Your task to perform on an android device: turn vacation reply on in the gmail app Image 0: 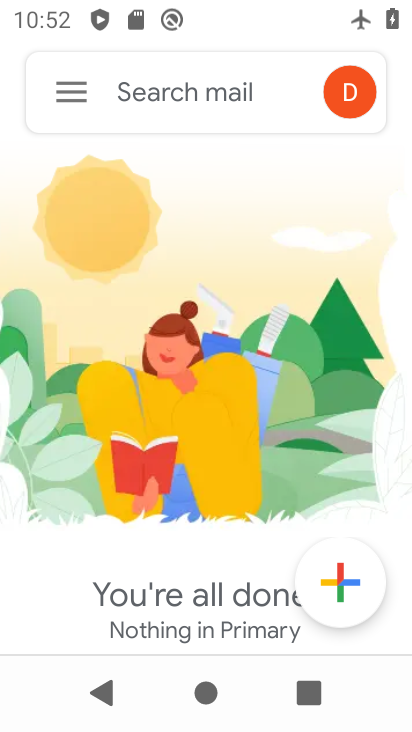
Step 0: press home button
Your task to perform on an android device: turn vacation reply on in the gmail app Image 1: 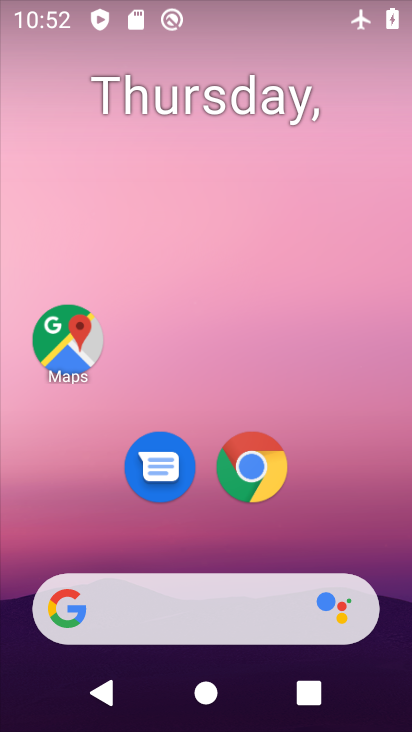
Step 1: drag from (341, 545) to (277, 13)
Your task to perform on an android device: turn vacation reply on in the gmail app Image 2: 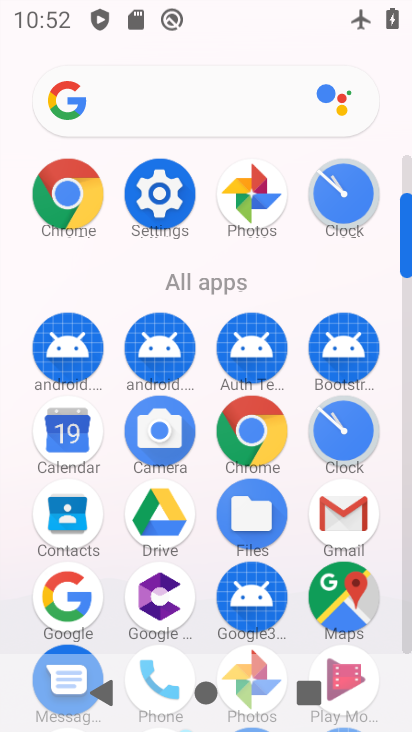
Step 2: click (339, 505)
Your task to perform on an android device: turn vacation reply on in the gmail app Image 3: 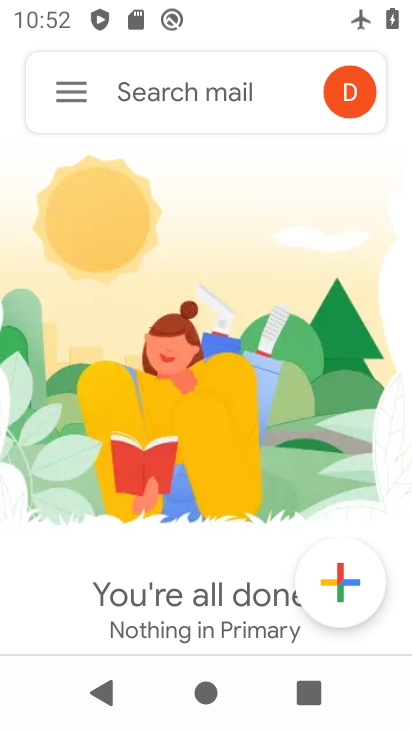
Step 3: click (76, 93)
Your task to perform on an android device: turn vacation reply on in the gmail app Image 4: 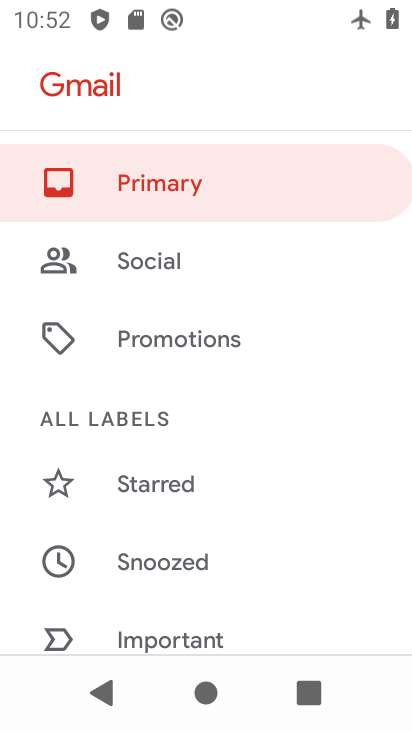
Step 4: drag from (229, 599) to (216, 36)
Your task to perform on an android device: turn vacation reply on in the gmail app Image 5: 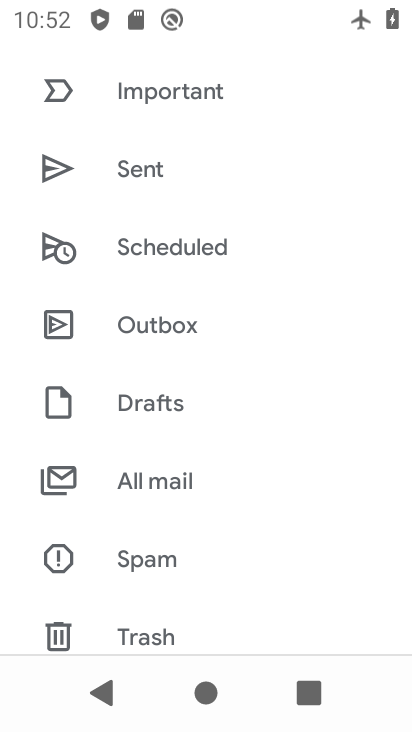
Step 5: drag from (157, 529) to (166, 65)
Your task to perform on an android device: turn vacation reply on in the gmail app Image 6: 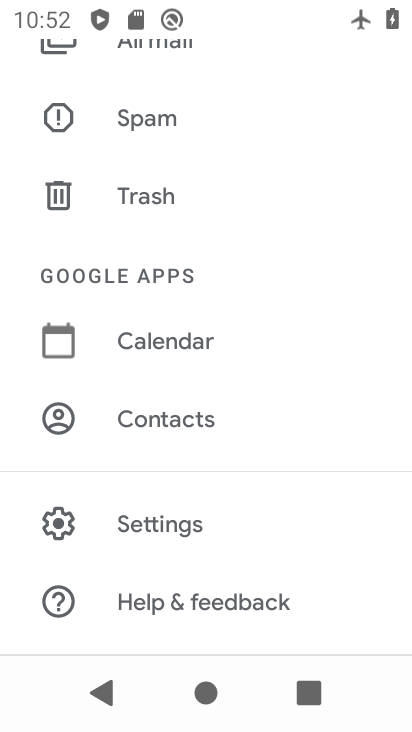
Step 6: click (130, 524)
Your task to perform on an android device: turn vacation reply on in the gmail app Image 7: 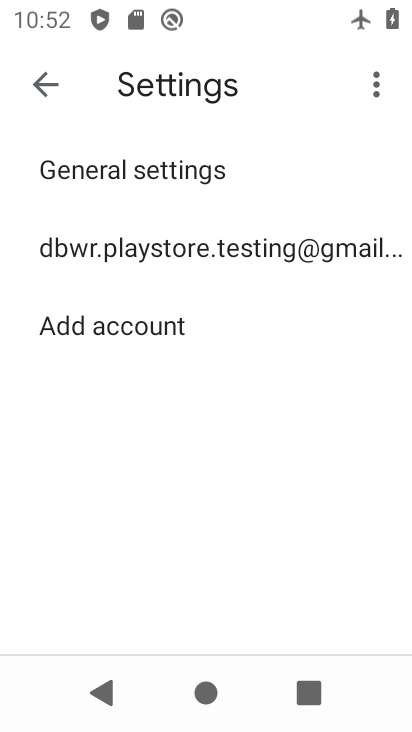
Step 7: click (100, 245)
Your task to perform on an android device: turn vacation reply on in the gmail app Image 8: 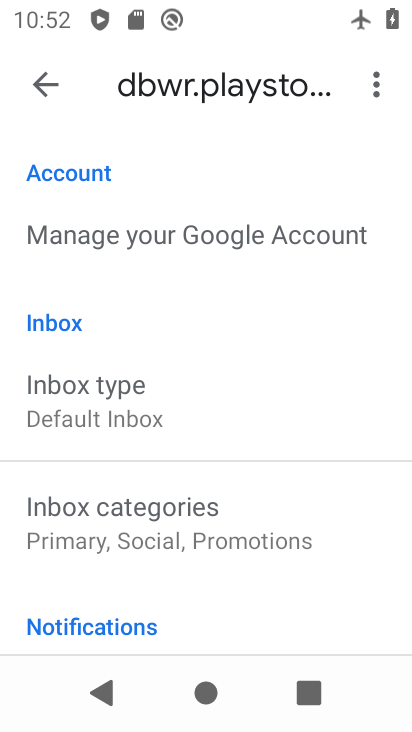
Step 8: drag from (154, 535) to (152, 34)
Your task to perform on an android device: turn vacation reply on in the gmail app Image 9: 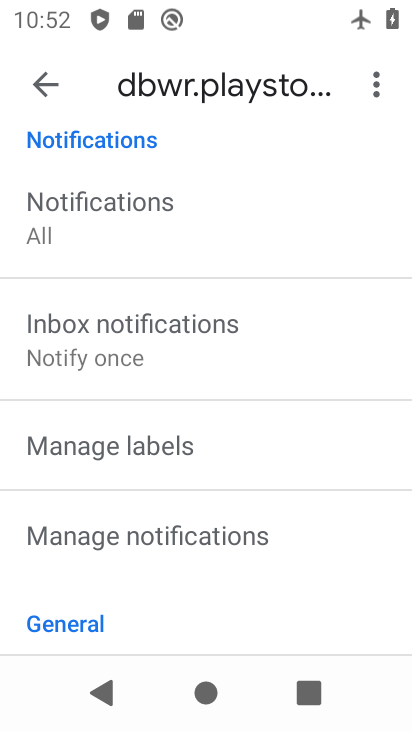
Step 9: drag from (180, 552) to (179, 127)
Your task to perform on an android device: turn vacation reply on in the gmail app Image 10: 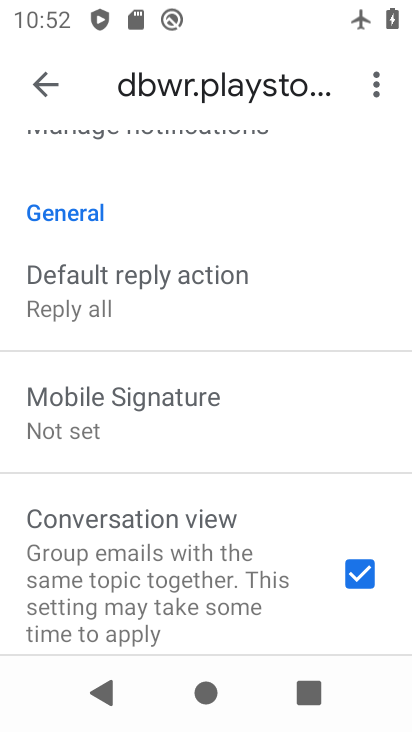
Step 10: drag from (185, 508) to (166, 135)
Your task to perform on an android device: turn vacation reply on in the gmail app Image 11: 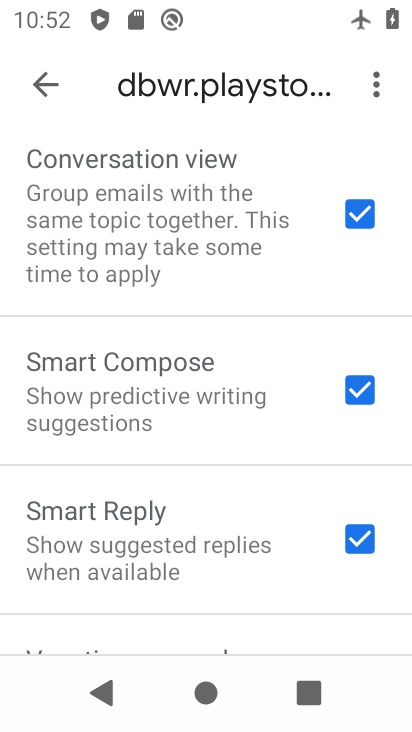
Step 11: drag from (140, 513) to (128, 154)
Your task to perform on an android device: turn vacation reply on in the gmail app Image 12: 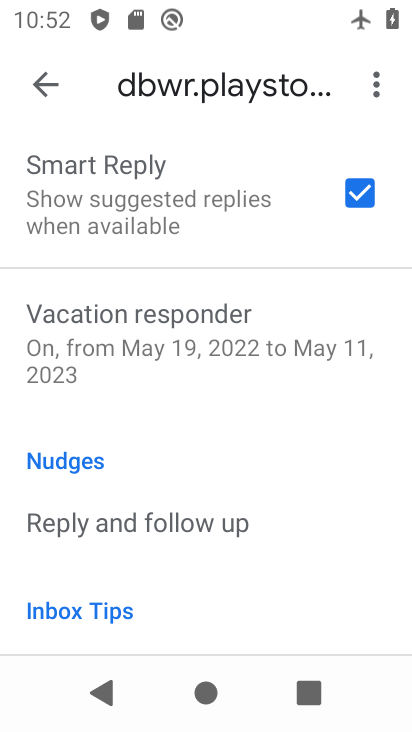
Step 12: click (107, 351)
Your task to perform on an android device: turn vacation reply on in the gmail app Image 13: 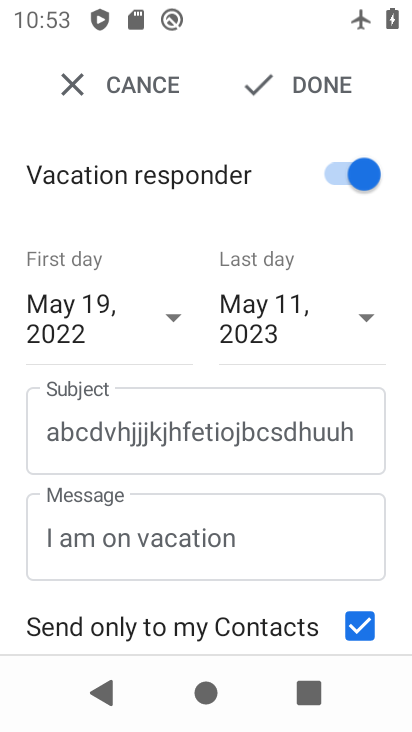
Step 13: click (309, 88)
Your task to perform on an android device: turn vacation reply on in the gmail app Image 14: 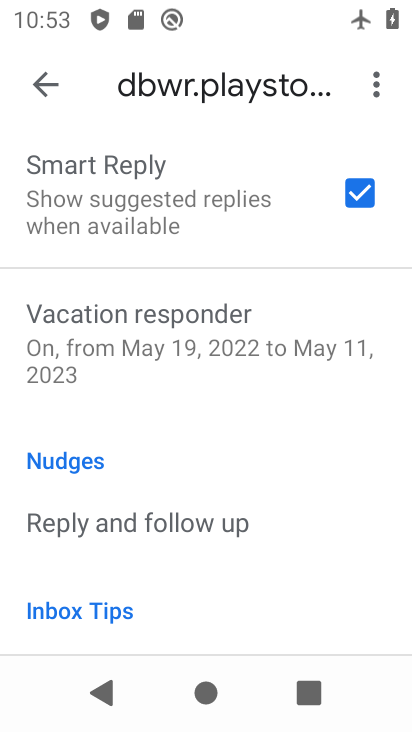
Step 14: task complete